Your task to perform on an android device: open chrome and create a bookmark for the current page Image 0: 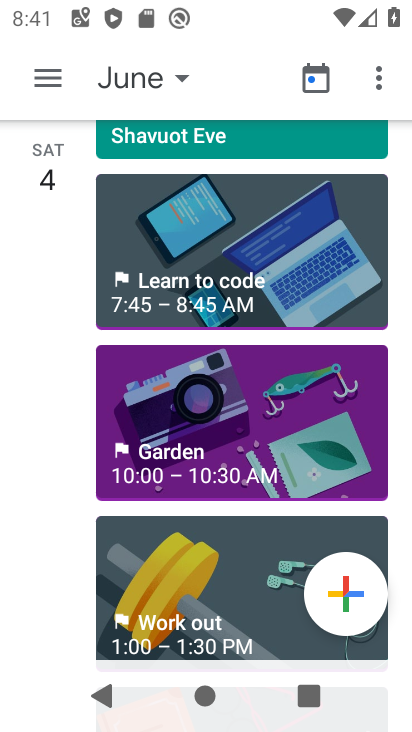
Step 0: drag from (165, 629) to (219, 0)
Your task to perform on an android device: open chrome and create a bookmark for the current page Image 1: 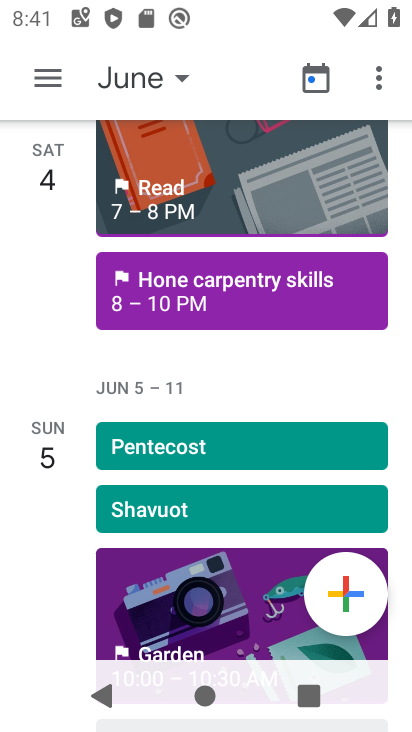
Step 1: press home button
Your task to perform on an android device: open chrome and create a bookmark for the current page Image 2: 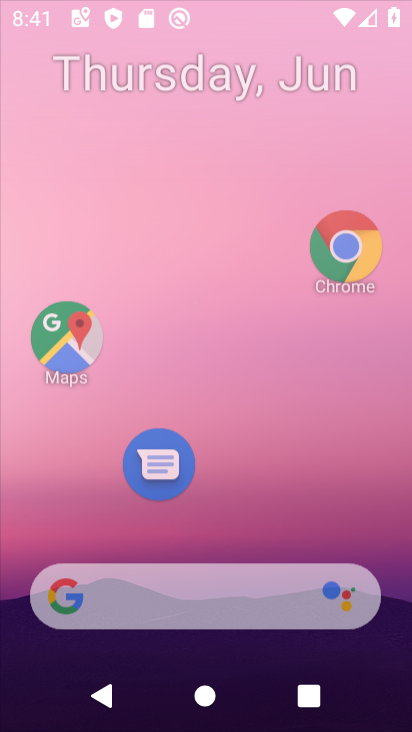
Step 2: drag from (215, 487) to (245, 95)
Your task to perform on an android device: open chrome and create a bookmark for the current page Image 3: 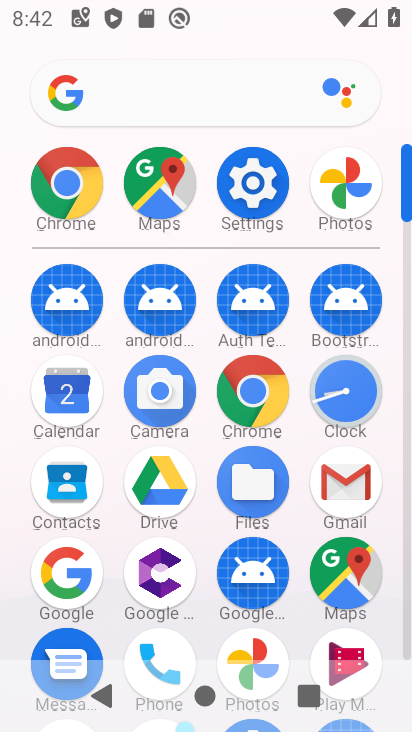
Step 3: click (255, 388)
Your task to perform on an android device: open chrome and create a bookmark for the current page Image 4: 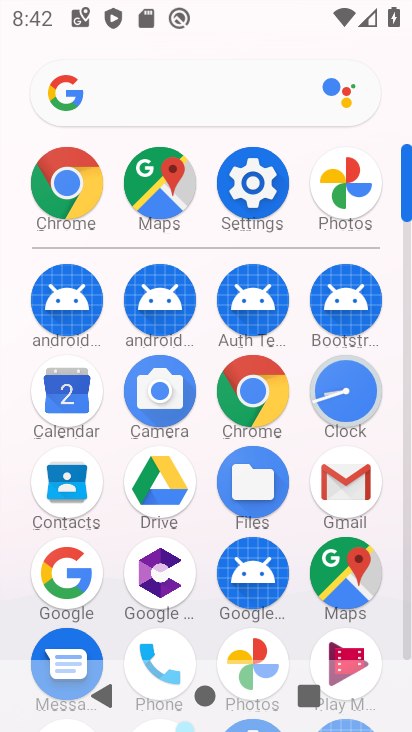
Step 4: click (255, 388)
Your task to perform on an android device: open chrome and create a bookmark for the current page Image 5: 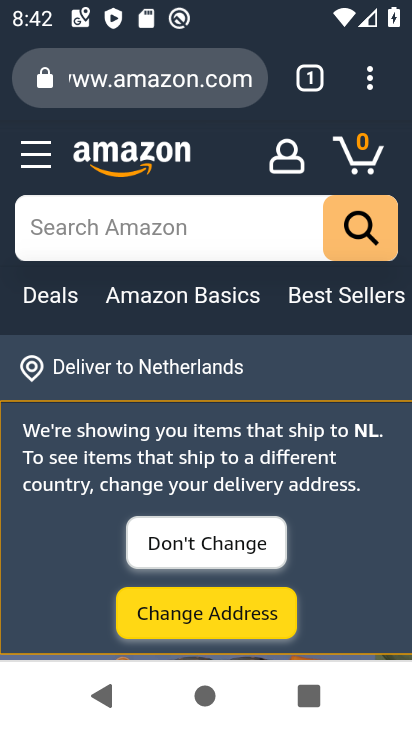
Step 5: drag from (370, 77) to (138, 93)
Your task to perform on an android device: open chrome and create a bookmark for the current page Image 6: 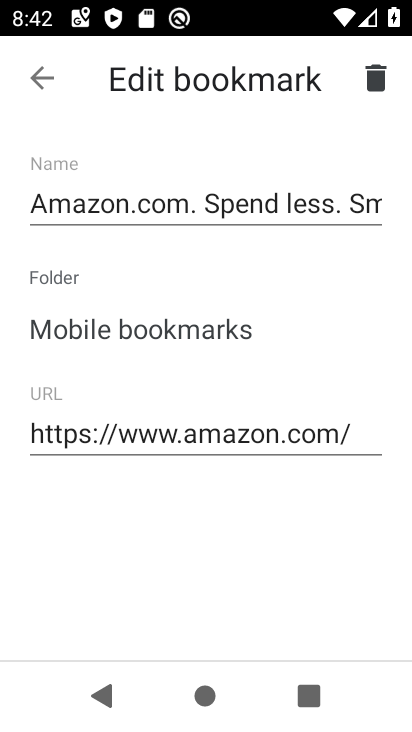
Step 6: click (36, 63)
Your task to perform on an android device: open chrome and create a bookmark for the current page Image 7: 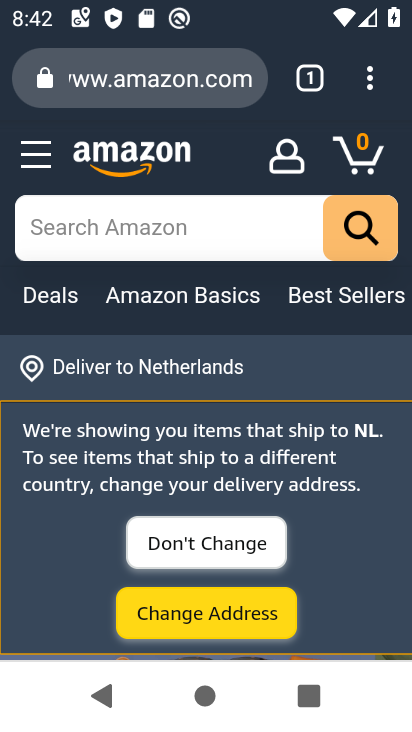
Step 7: task complete